Your task to perform on an android device: allow cookies in the chrome app Image 0: 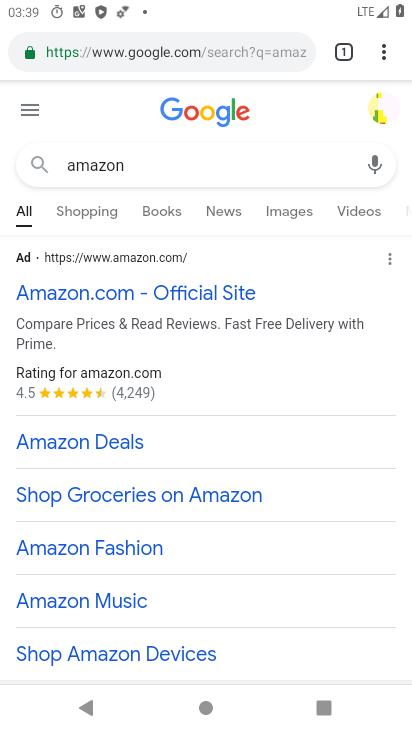
Step 0: press home button
Your task to perform on an android device: allow cookies in the chrome app Image 1: 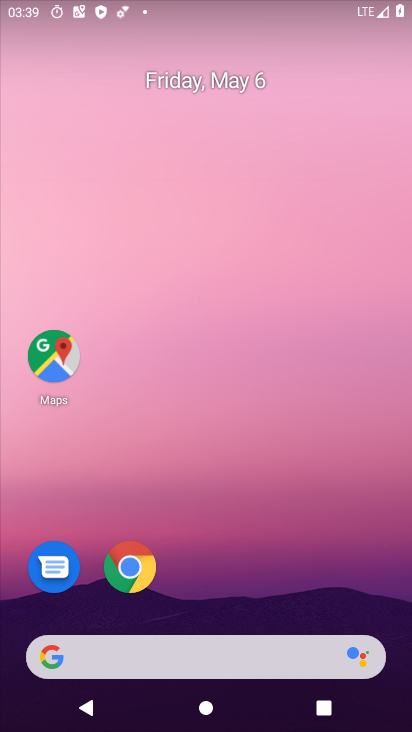
Step 1: click (128, 561)
Your task to perform on an android device: allow cookies in the chrome app Image 2: 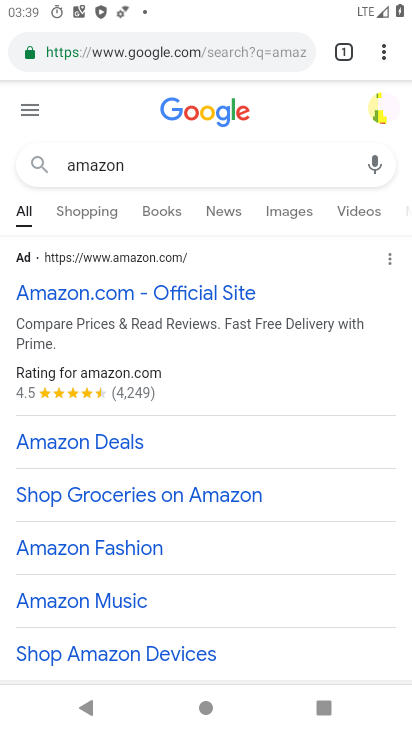
Step 2: click (384, 51)
Your task to perform on an android device: allow cookies in the chrome app Image 3: 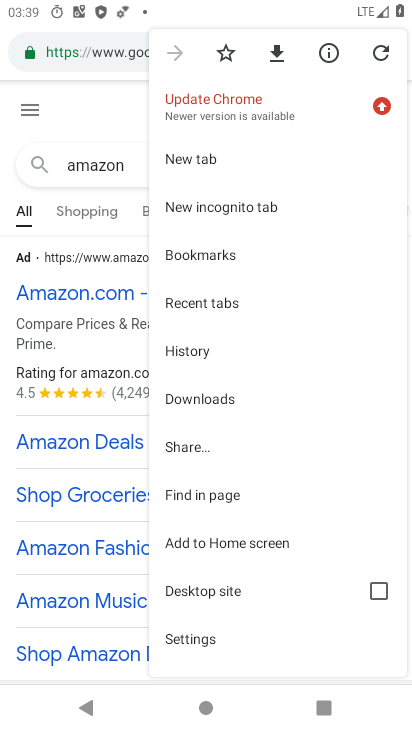
Step 3: click (182, 632)
Your task to perform on an android device: allow cookies in the chrome app Image 4: 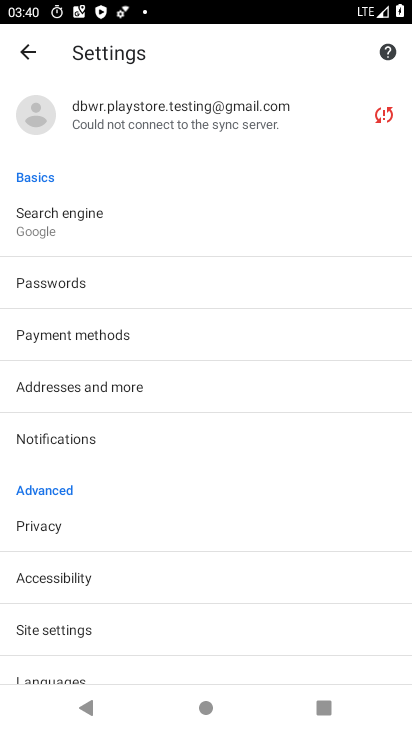
Step 4: drag from (61, 646) to (74, 381)
Your task to perform on an android device: allow cookies in the chrome app Image 5: 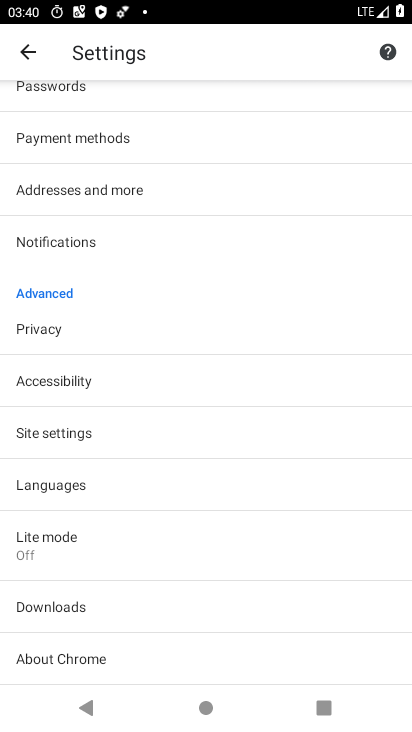
Step 5: click (63, 433)
Your task to perform on an android device: allow cookies in the chrome app Image 6: 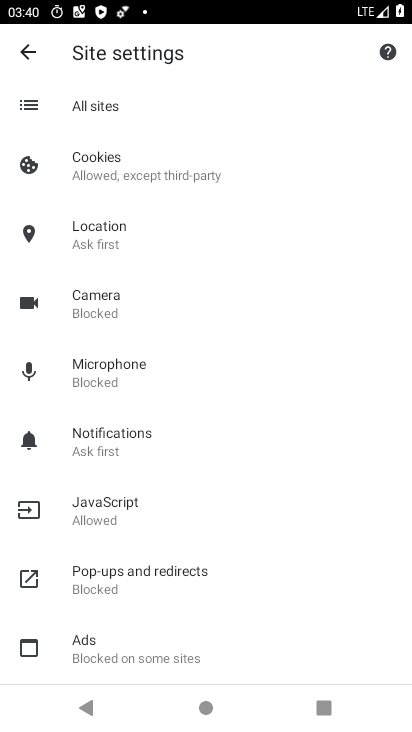
Step 6: click (125, 178)
Your task to perform on an android device: allow cookies in the chrome app Image 7: 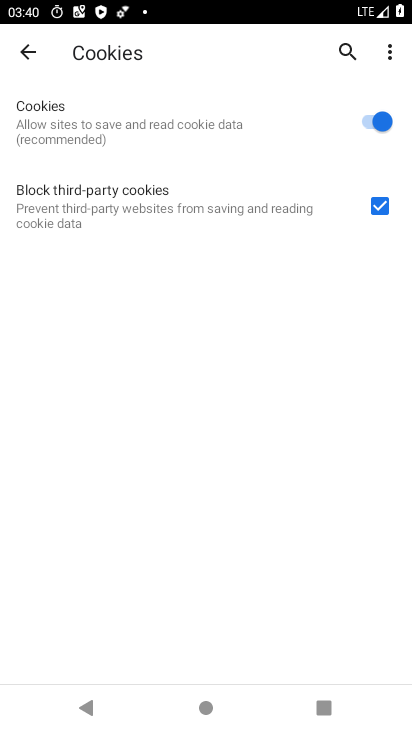
Step 7: task complete